Your task to perform on an android device: turn on location history Image 0: 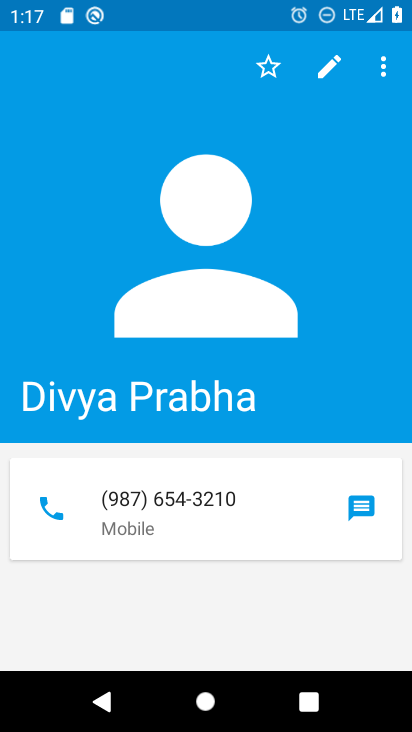
Step 0: press home button
Your task to perform on an android device: turn on location history Image 1: 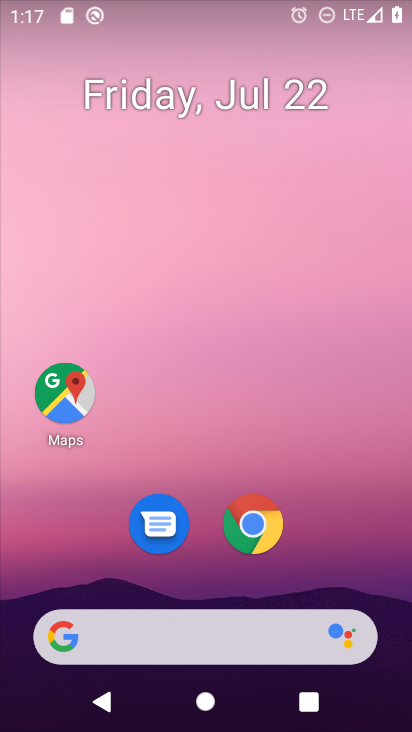
Step 1: drag from (323, 572) to (340, 122)
Your task to perform on an android device: turn on location history Image 2: 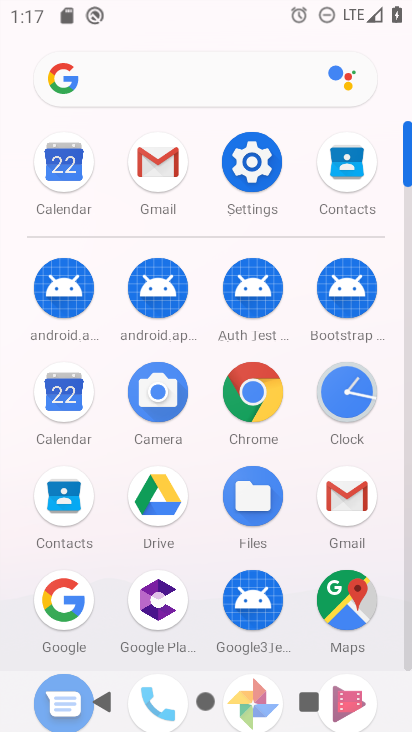
Step 2: click (263, 162)
Your task to perform on an android device: turn on location history Image 3: 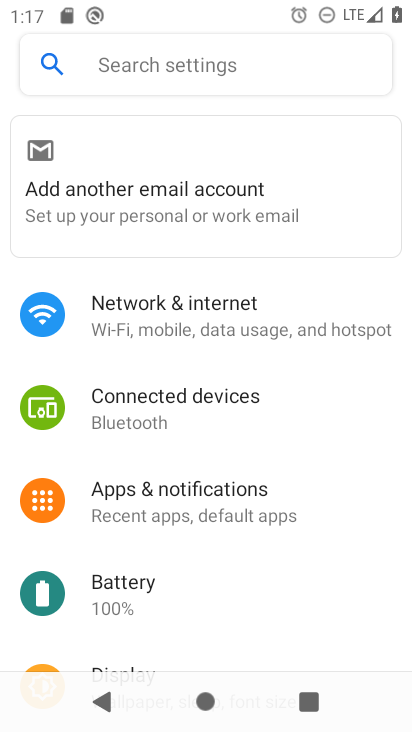
Step 3: drag from (211, 576) to (242, 2)
Your task to perform on an android device: turn on location history Image 4: 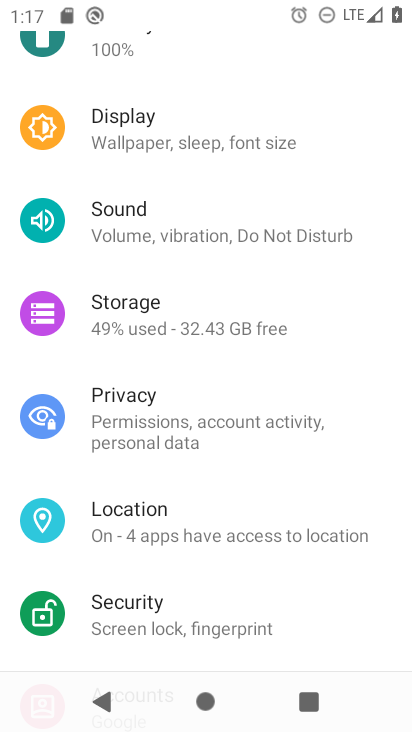
Step 4: click (188, 519)
Your task to perform on an android device: turn on location history Image 5: 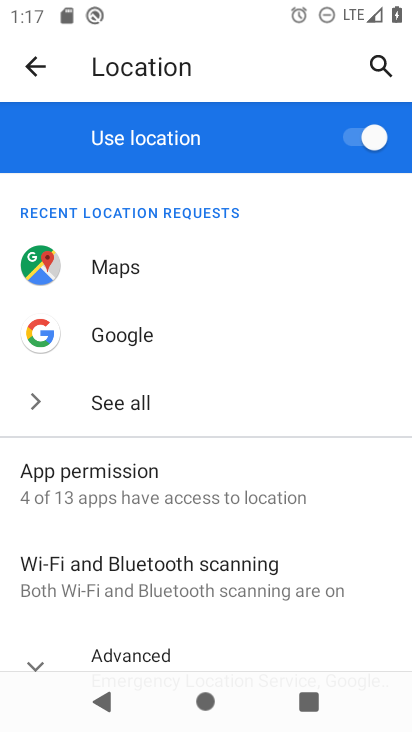
Step 5: click (35, 406)
Your task to perform on an android device: turn on location history Image 6: 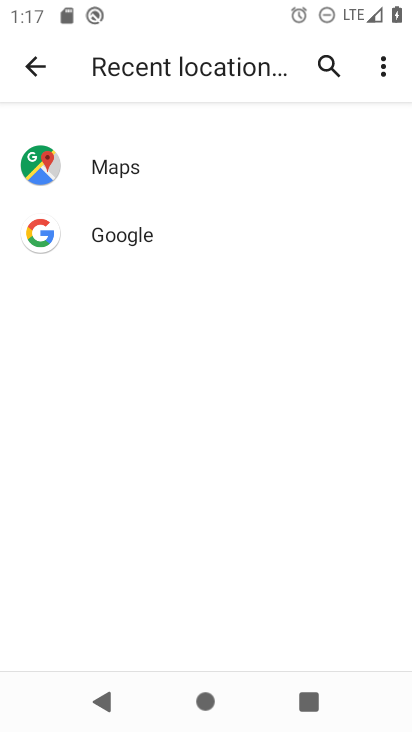
Step 6: click (35, 54)
Your task to perform on an android device: turn on location history Image 7: 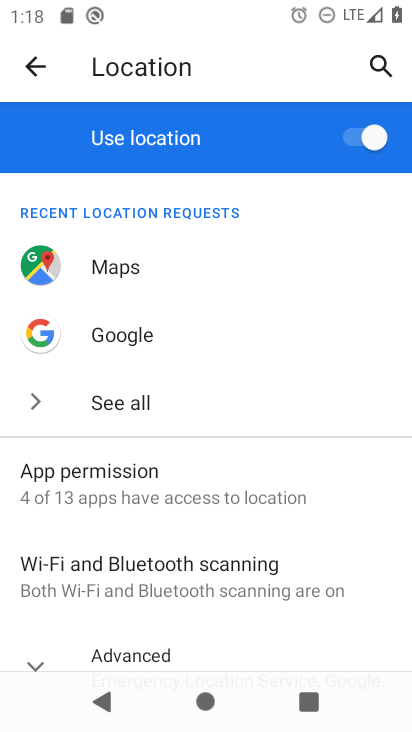
Step 7: click (38, 657)
Your task to perform on an android device: turn on location history Image 8: 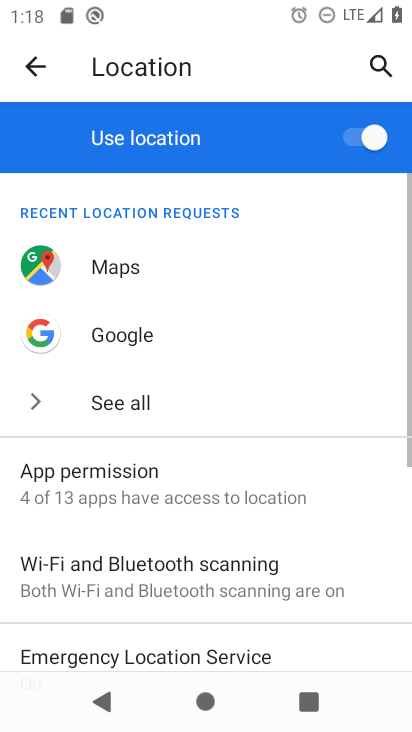
Step 8: drag from (202, 533) to (279, 58)
Your task to perform on an android device: turn on location history Image 9: 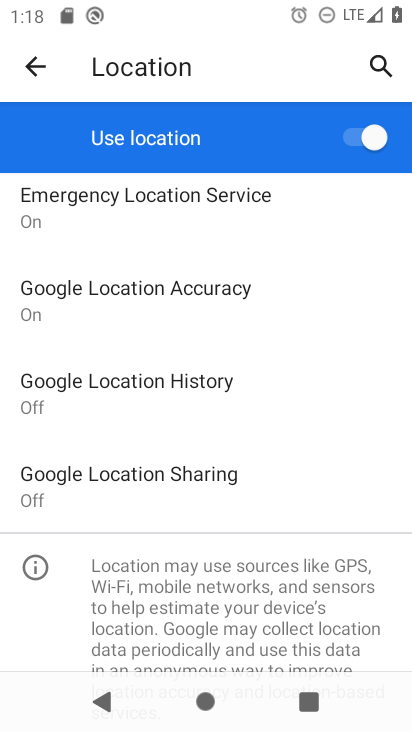
Step 9: click (175, 394)
Your task to perform on an android device: turn on location history Image 10: 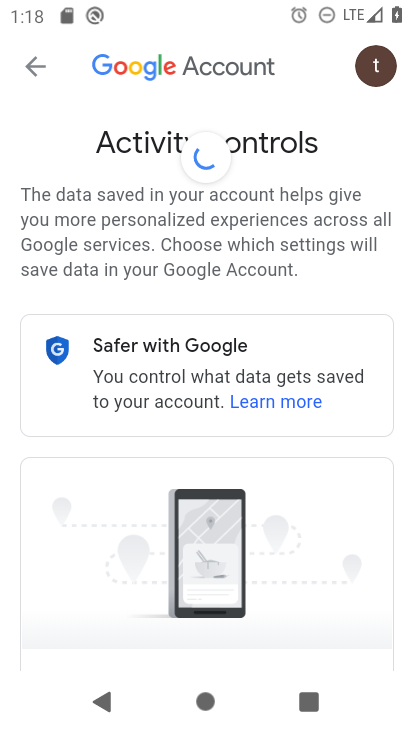
Step 10: drag from (288, 574) to (337, 79)
Your task to perform on an android device: turn on location history Image 11: 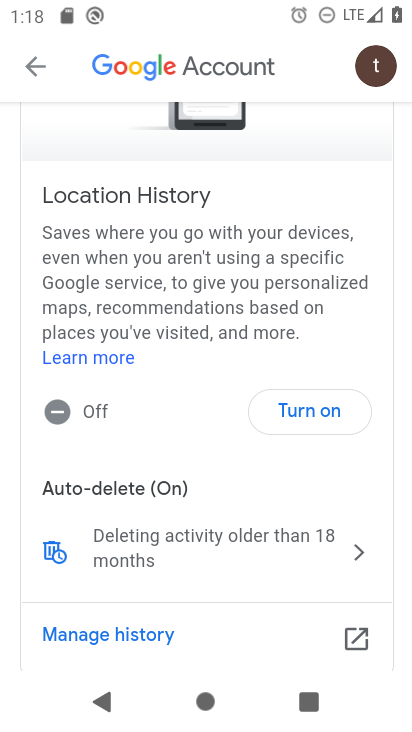
Step 11: click (314, 410)
Your task to perform on an android device: turn on location history Image 12: 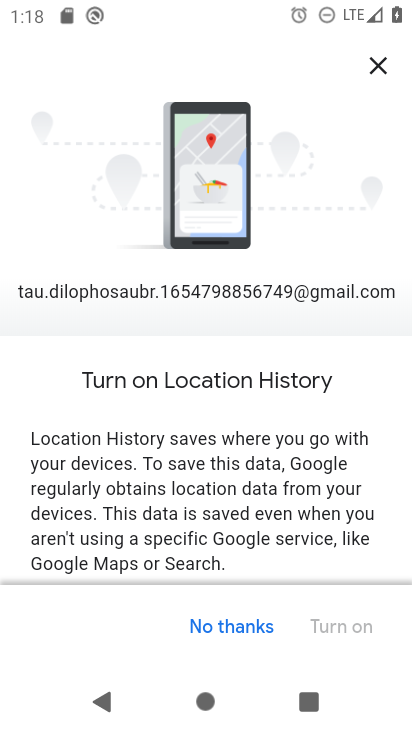
Step 12: drag from (293, 528) to (339, 81)
Your task to perform on an android device: turn on location history Image 13: 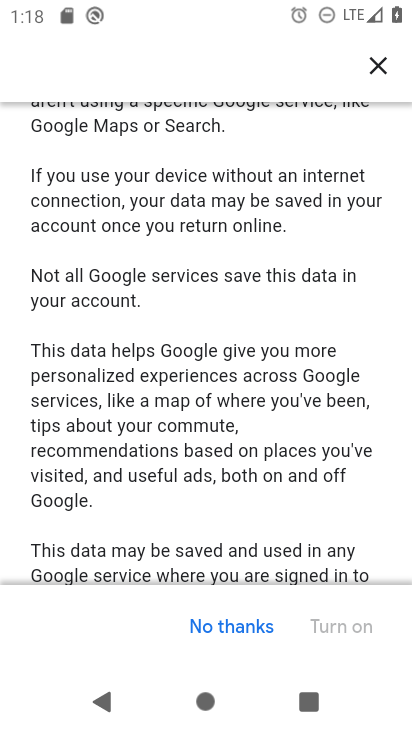
Step 13: drag from (259, 501) to (286, 57)
Your task to perform on an android device: turn on location history Image 14: 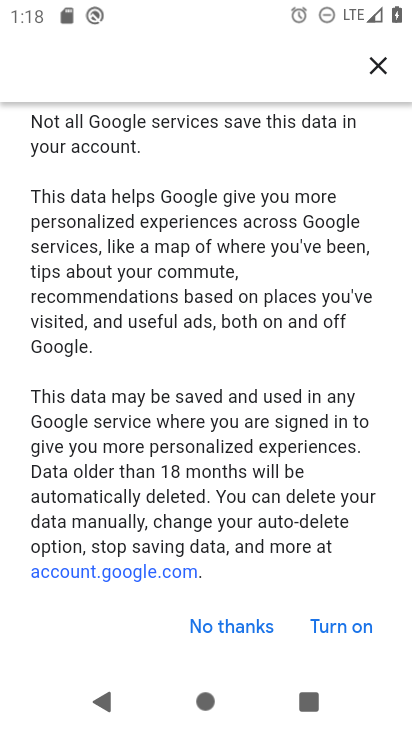
Step 14: click (322, 626)
Your task to perform on an android device: turn on location history Image 15: 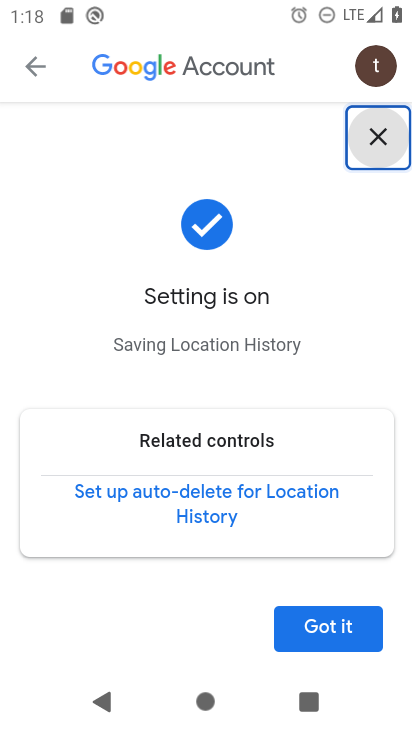
Step 15: click (365, 631)
Your task to perform on an android device: turn on location history Image 16: 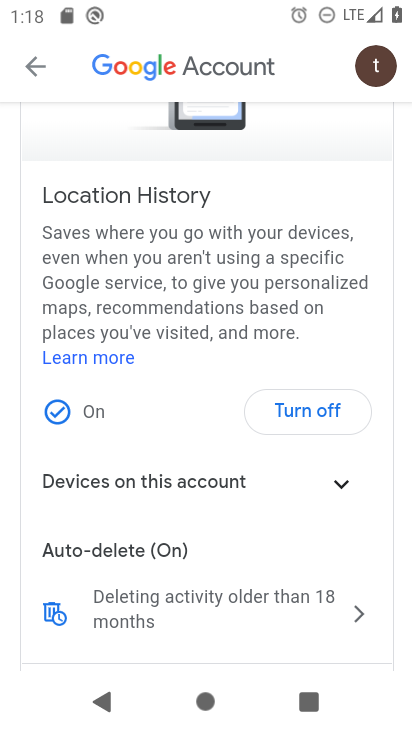
Step 16: task complete